Your task to perform on an android device: Go to notification settings Image 0: 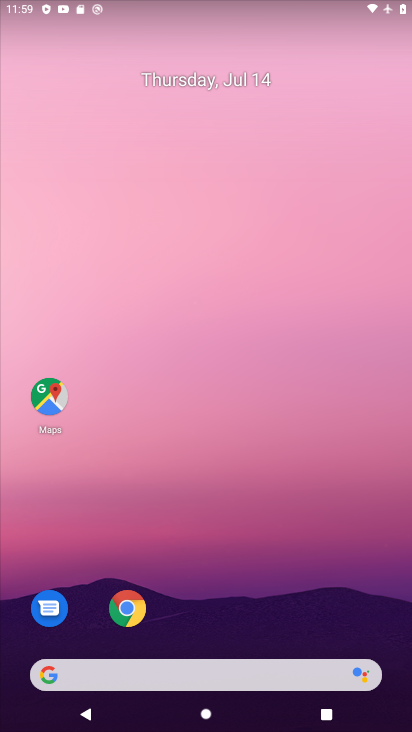
Step 0: drag from (229, 626) to (241, 157)
Your task to perform on an android device: Go to notification settings Image 1: 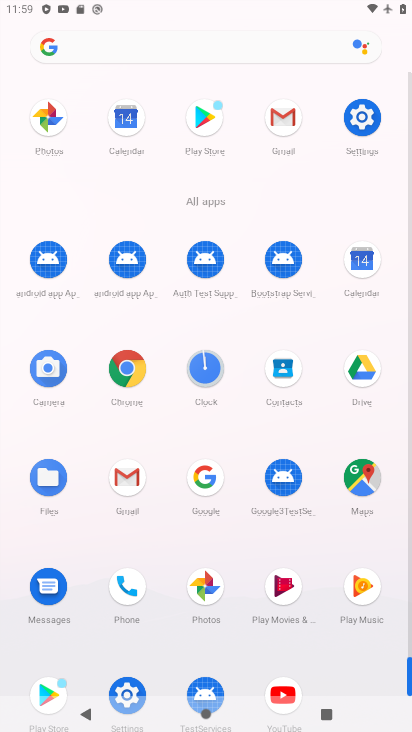
Step 1: click (359, 111)
Your task to perform on an android device: Go to notification settings Image 2: 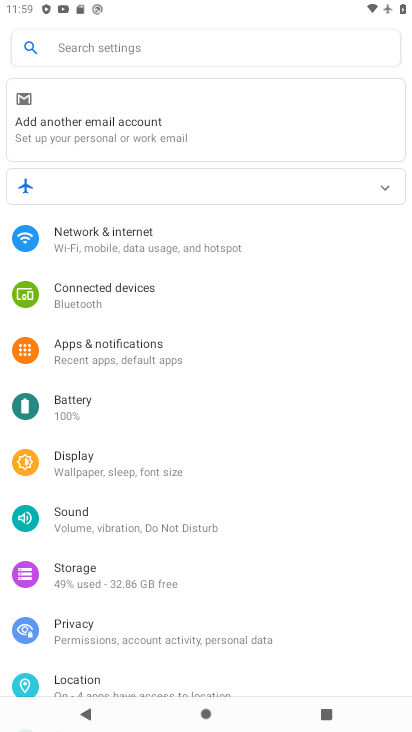
Step 2: click (144, 348)
Your task to perform on an android device: Go to notification settings Image 3: 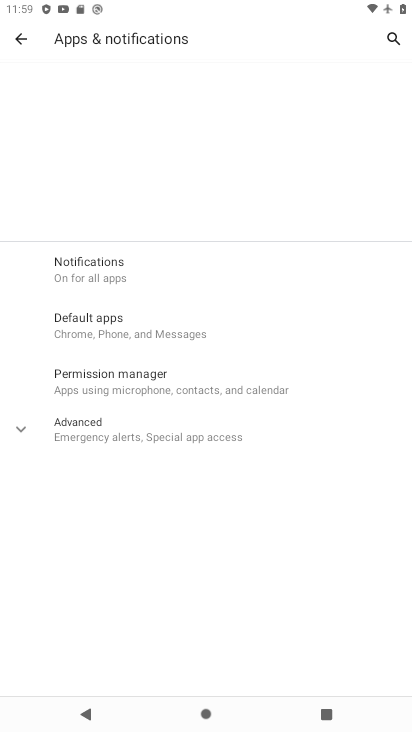
Step 3: click (117, 268)
Your task to perform on an android device: Go to notification settings Image 4: 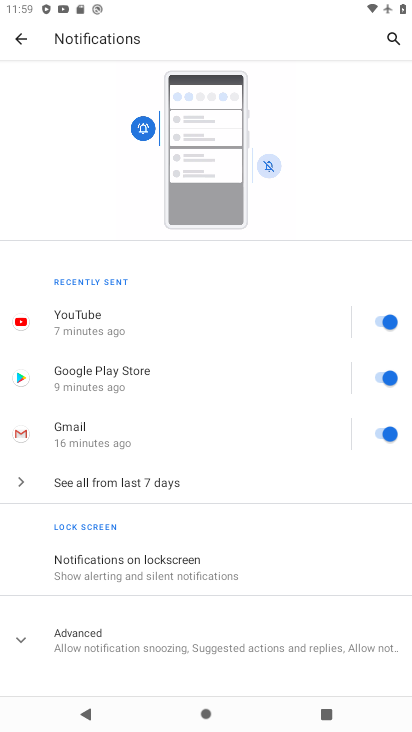
Step 4: task complete